Your task to perform on an android device: What's the weather? Image 0: 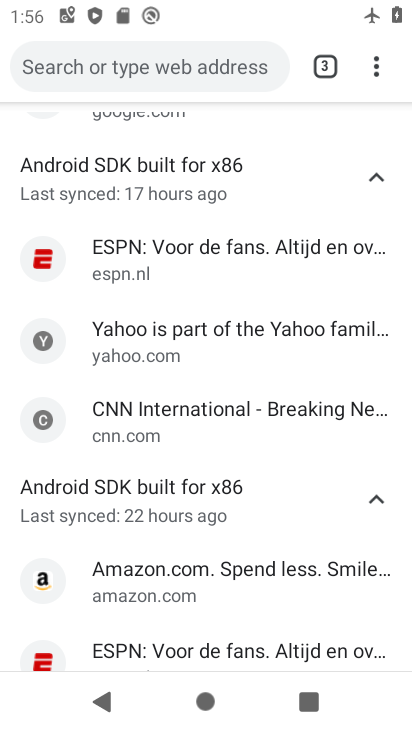
Step 0: click (258, 65)
Your task to perform on an android device: What's the weather? Image 1: 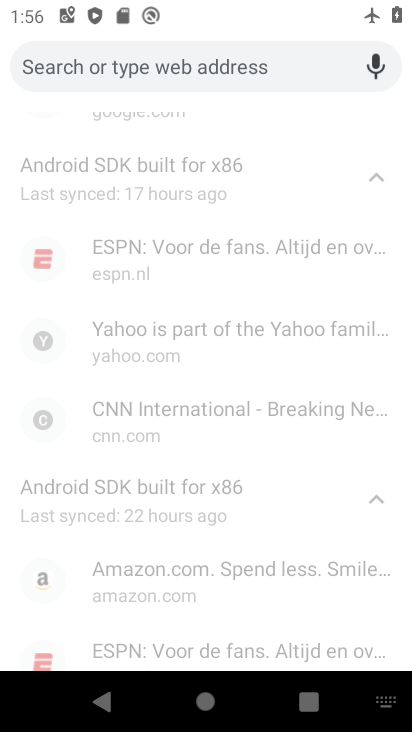
Step 1: press home button
Your task to perform on an android device: What's the weather? Image 2: 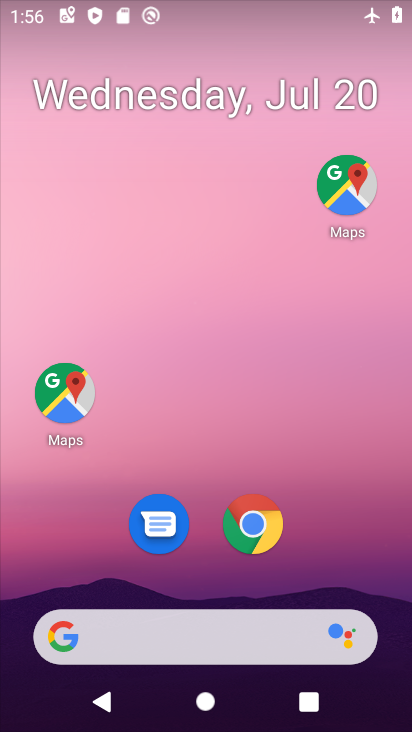
Step 2: click (168, 635)
Your task to perform on an android device: What's the weather? Image 3: 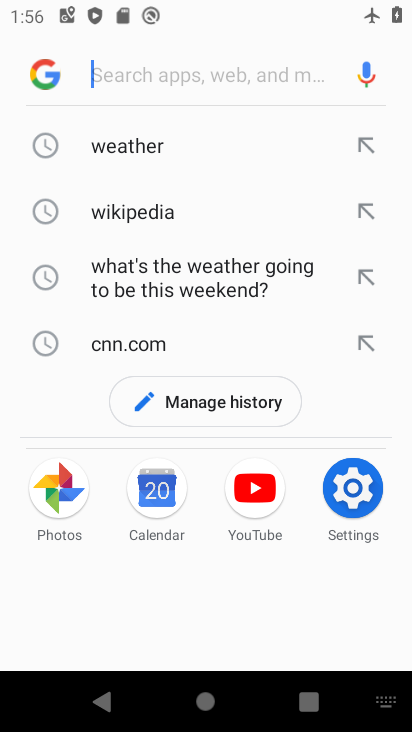
Step 3: click (160, 149)
Your task to perform on an android device: What's the weather? Image 4: 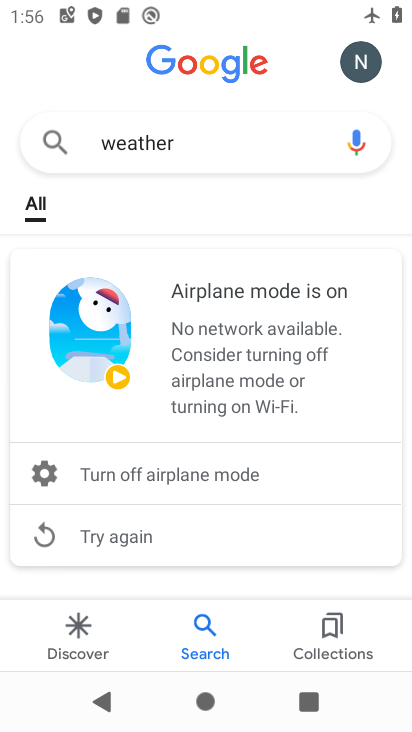
Step 4: click (166, 472)
Your task to perform on an android device: What's the weather? Image 5: 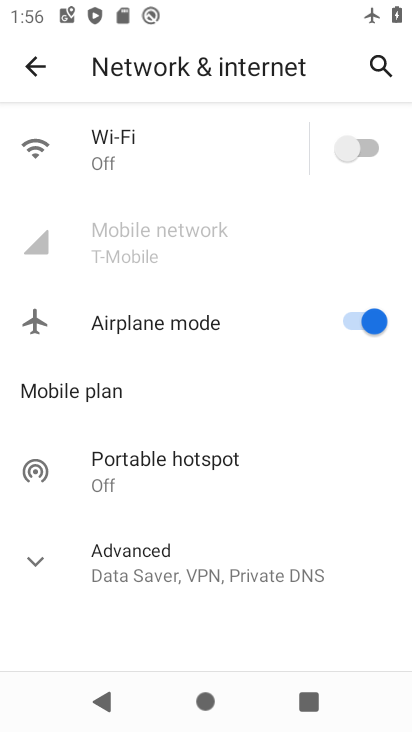
Step 5: click (357, 321)
Your task to perform on an android device: What's the weather? Image 6: 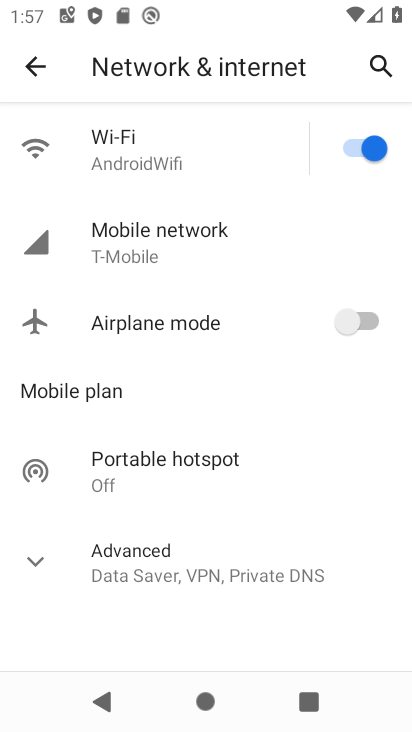
Step 6: press home button
Your task to perform on an android device: What's the weather? Image 7: 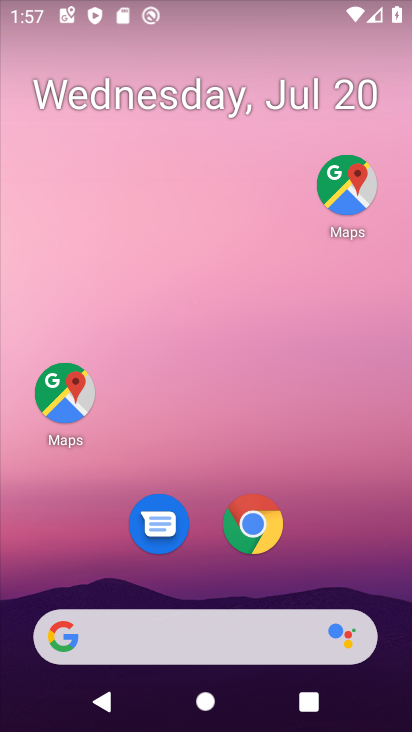
Step 7: click (157, 629)
Your task to perform on an android device: What's the weather? Image 8: 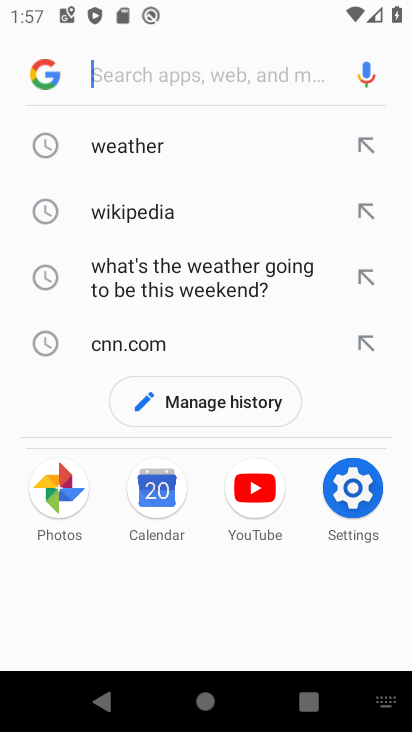
Step 8: click (151, 140)
Your task to perform on an android device: What's the weather? Image 9: 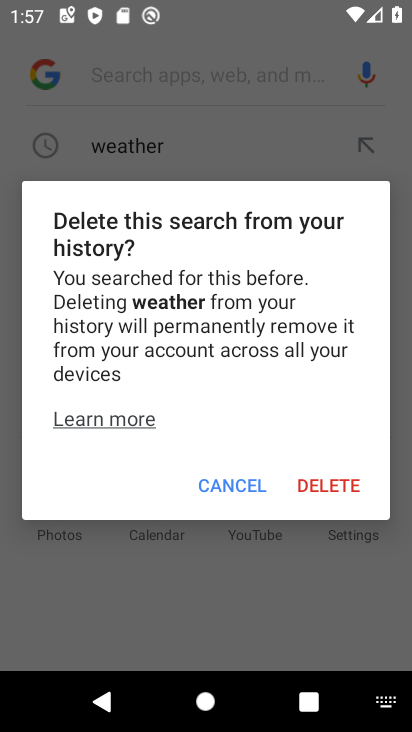
Step 9: click (245, 476)
Your task to perform on an android device: What's the weather? Image 10: 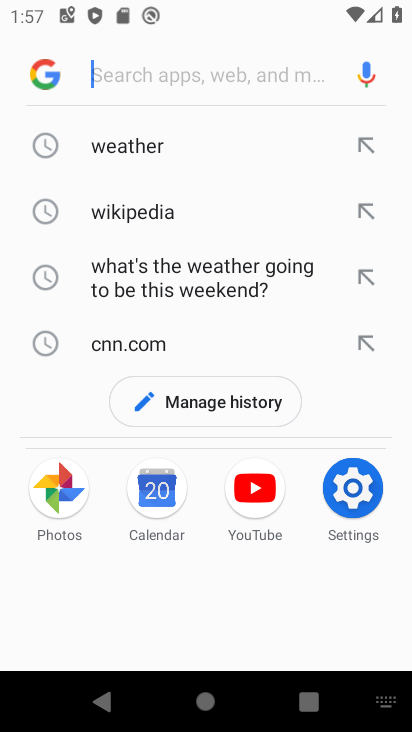
Step 10: click (48, 134)
Your task to perform on an android device: What's the weather? Image 11: 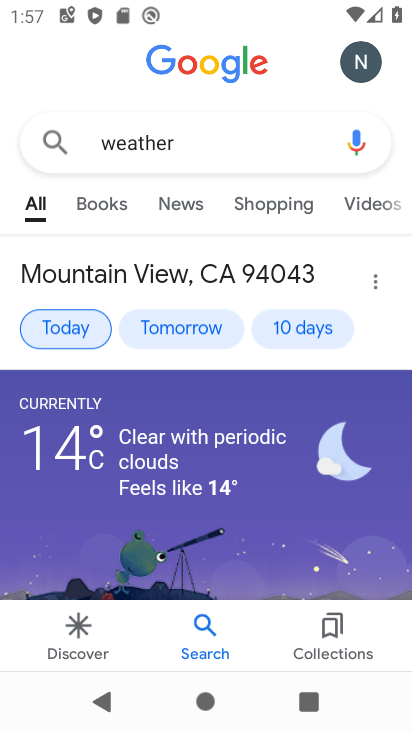
Step 11: click (365, 139)
Your task to perform on an android device: What's the weather? Image 12: 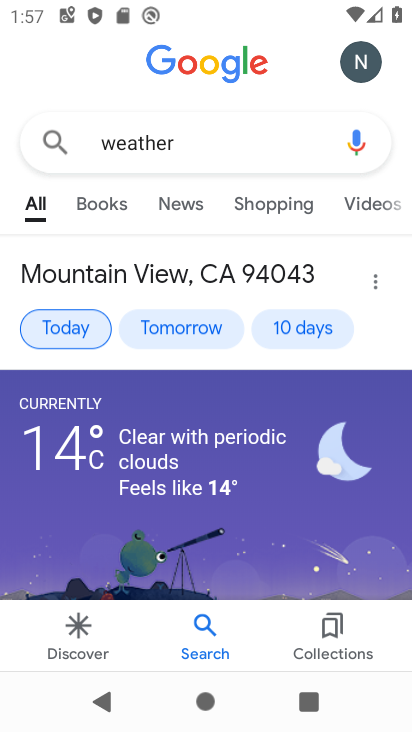
Step 12: click (154, 144)
Your task to perform on an android device: What's the weather? Image 13: 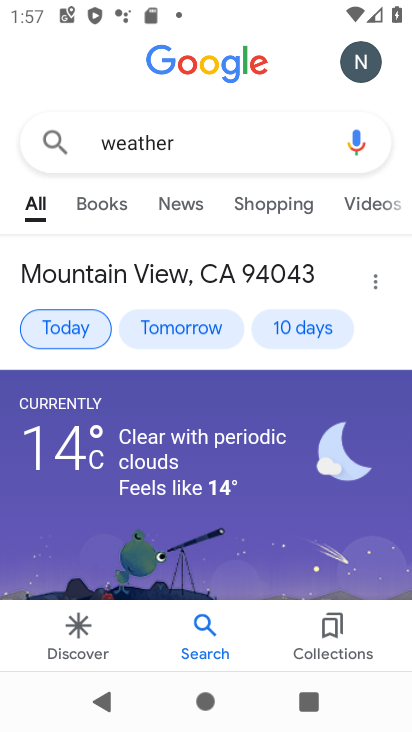
Step 13: click (84, 330)
Your task to perform on an android device: What's the weather? Image 14: 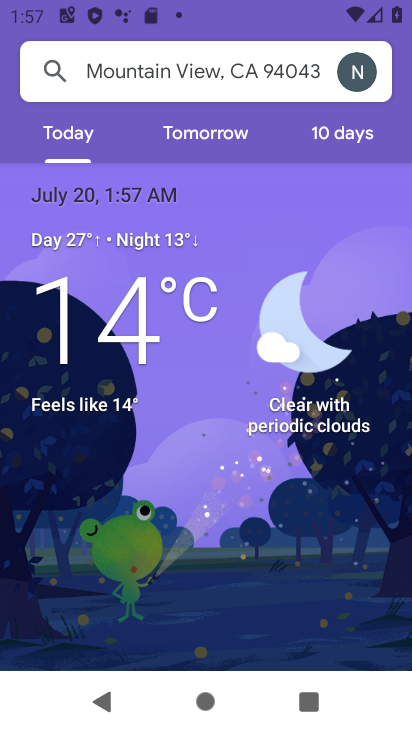
Step 14: task complete